Your task to perform on an android device: Go to Wikipedia Image 0: 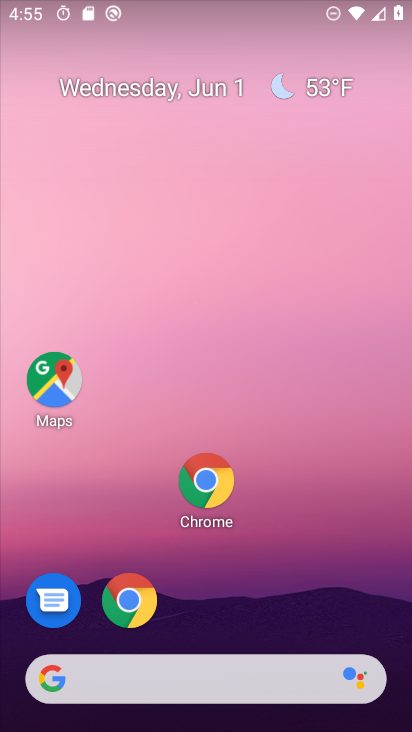
Step 0: drag from (279, 649) to (178, 195)
Your task to perform on an android device: Go to Wikipedia Image 1: 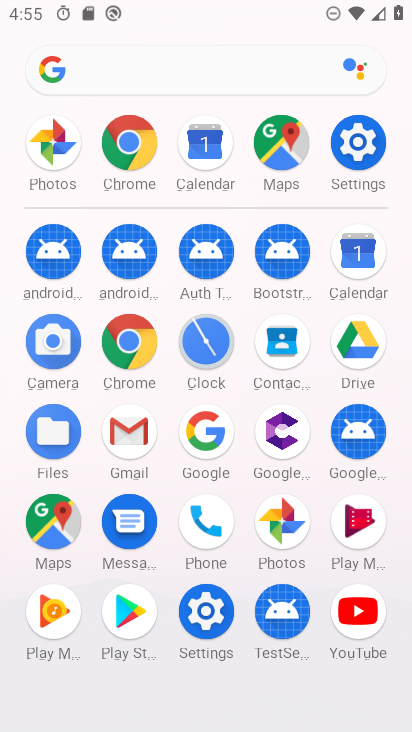
Step 1: click (114, 158)
Your task to perform on an android device: Go to Wikipedia Image 2: 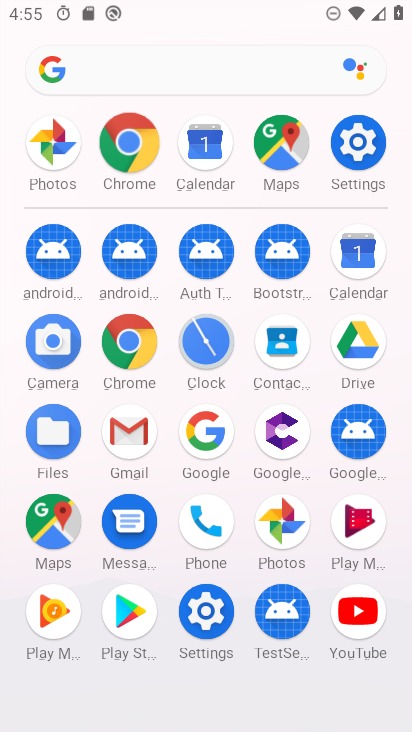
Step 2: click (116, 158)
Your task to perform on an android device: Go to Wikipedia Image 3: 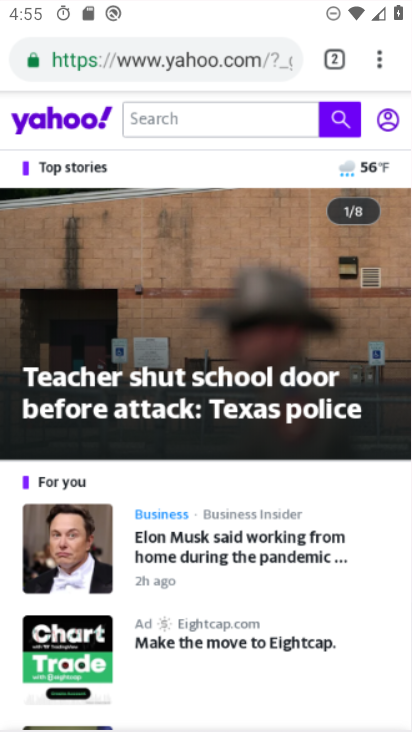
Step 3: click (123, 152)
Your task to perform on an android device: Go to Wikipedia Image 4: 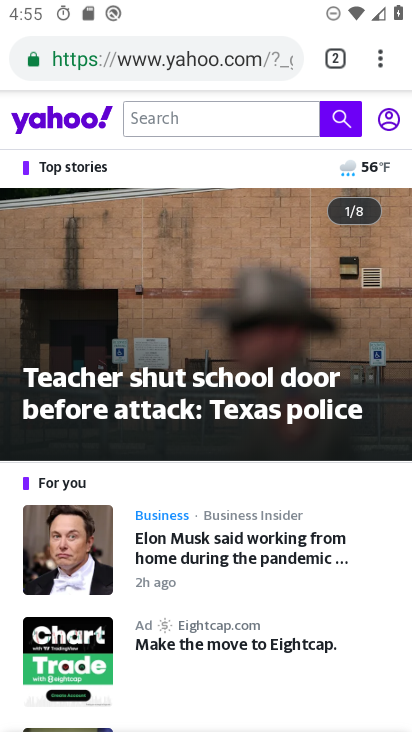
Step 4: click (376, 57)
Your task to perform on an android device: Go to Wikipedia Image 5: 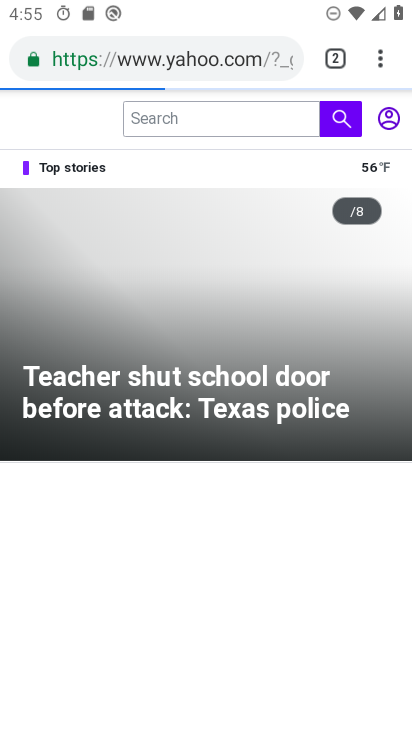
Step 5: drag from (376, 60) to (191, 635)
Your task to perform on an android device: Go to Wikipedia Image 6: 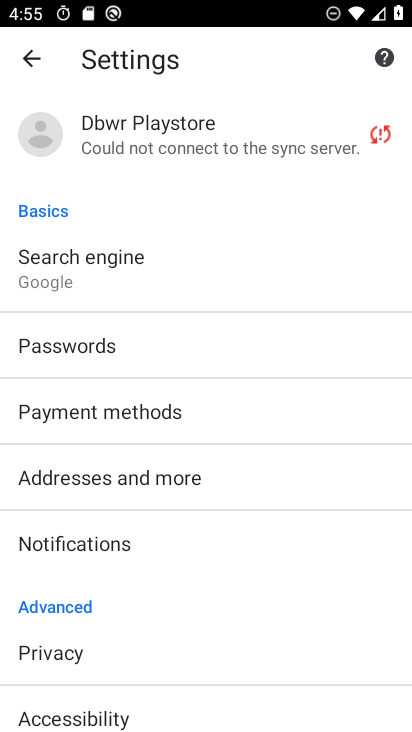
Step 6: click (46, 56)
Your task to perform on an android device: Go to Wikipedia Image 7: 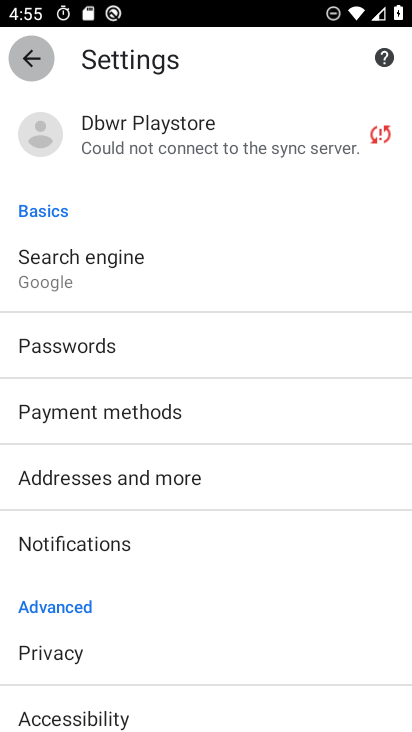
Step 7: click (31, 55)
Your task to perform on an android device: Go to Wikipedia Image 8: 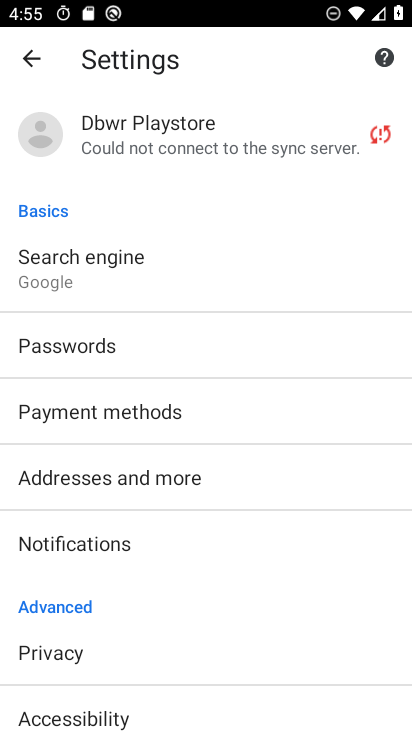
Step 8: click (31, 55)
Your task to perform on an android device: Go to Wikipedia Image 9: 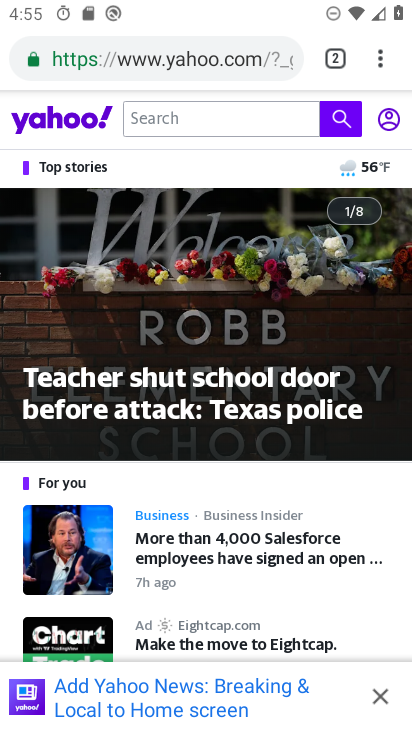
Step 9: click (378, 63)
Your task to perform on an android device: Go to Wikipedia Image 10: 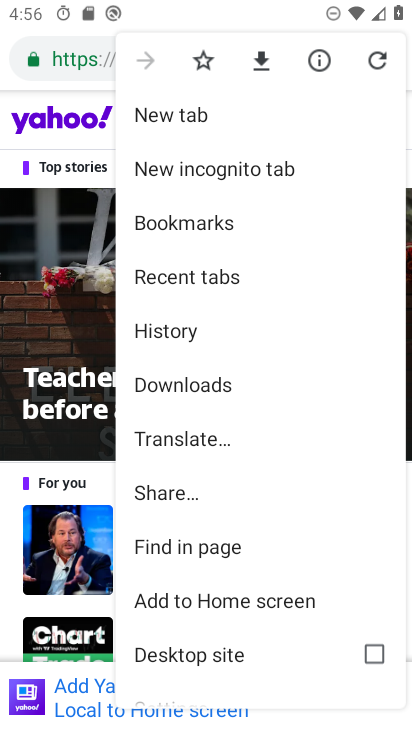
Step 10: drag from (250, 568) to (232, 458)
Your task to perform on an android device: Go to Wikipedia Image 11: 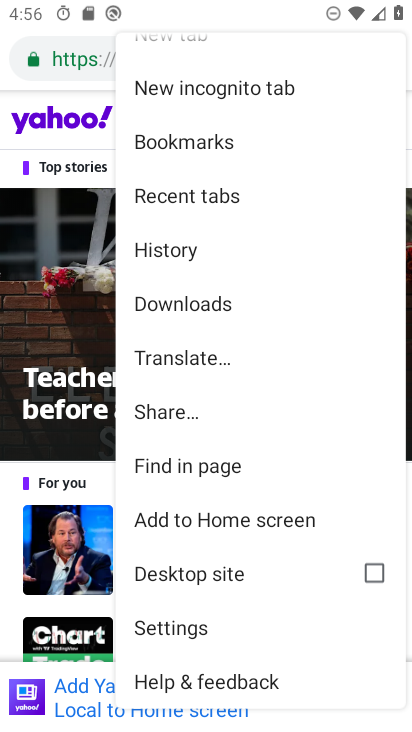
Step 11: drag from (230, 318) to (187, 582)
Your task to perform on an android device: Go to Wikipedia Image 12: 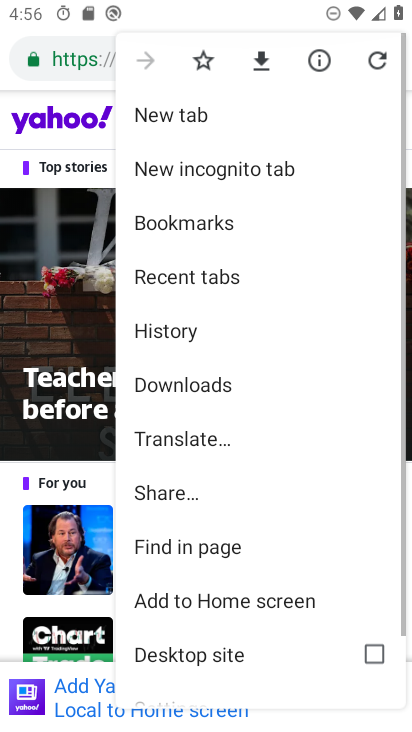
Step 12: drag from (224, 446) to (258, 569)
Your task to perform on an android device: Go to Wikipedia Image 13: 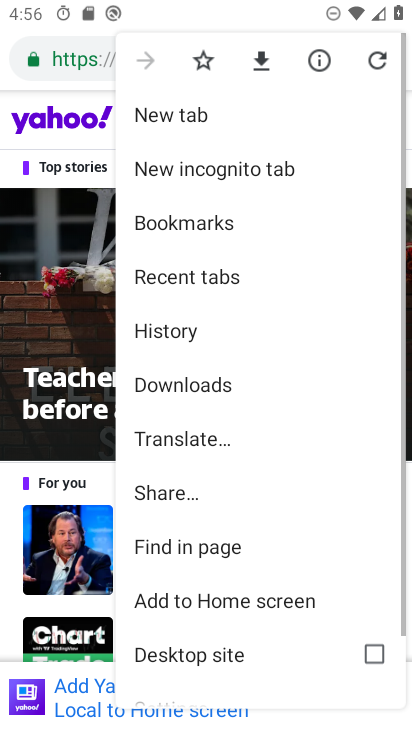
Step 13: drag from (234, 373) to (260, 487)
Your task to perform on an android device: Go to Wikipedia Image 14: 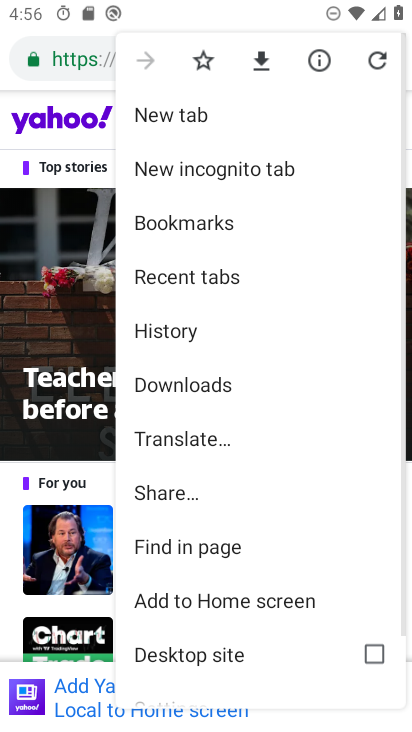
Step 14: click (172, 119)
Your task to perform on an android device: Go to Wikipedia Image 15: 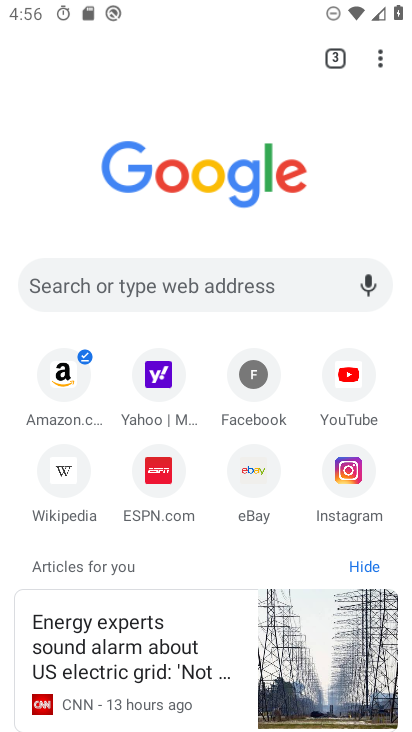
Step 15: click (58, 463)
Your task to perform on an android device: Go to Wikipedia Image 16: 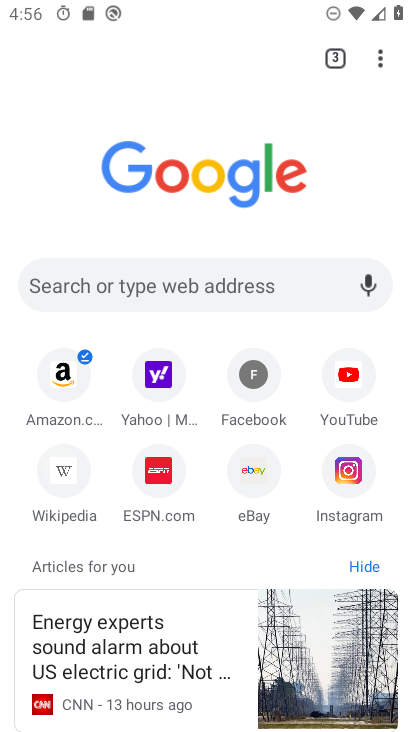
Step 16: click (59, 462)
Your task to perform on an android device: Go to Wikipedia Image 17: 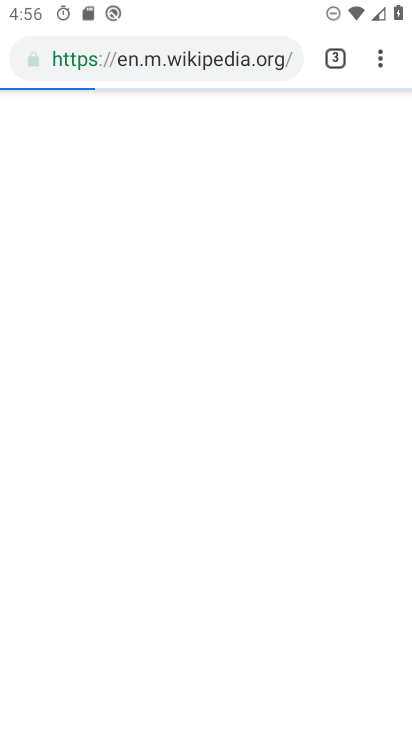
Step 17: click (69, 475)
Your task to perform on an android device: Go to Wikipedia Image 18: 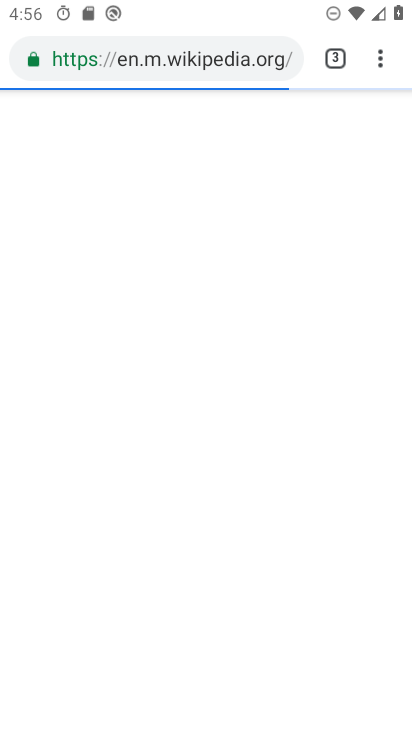
Step 18: click (67, 477)
Your task to perform on an android device: Go to Wikipedia Image 19: 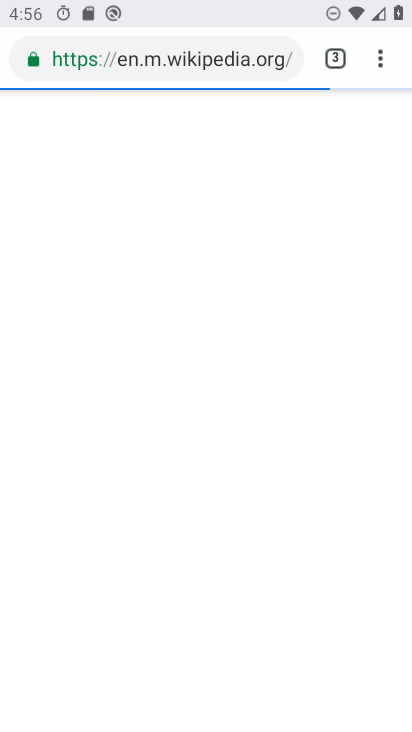
Step 19: click (64, 481)
Your task to perform on an android device: Go to Wikipedia Image 20: 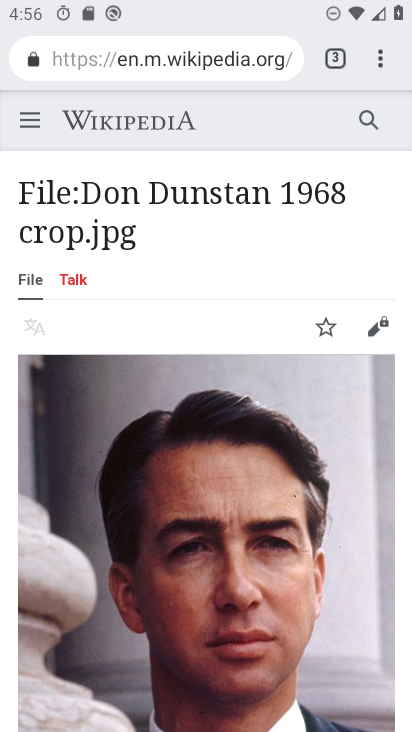
Step 20: task complete